Your task to perform on an android device: Is it going to rain today? Image 0: 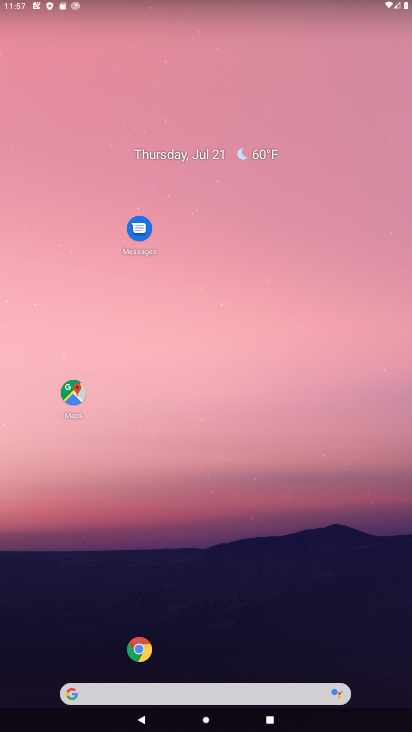
Step 0: click (123, 688)
Your task to perform on an android device: Is it going to rain today? Image 1: 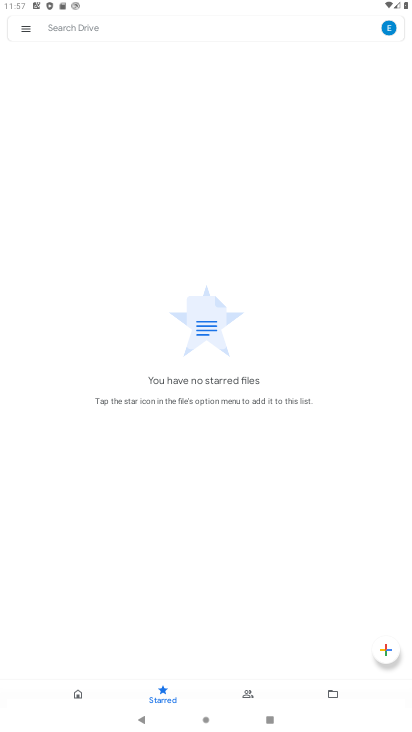
Step 1: press home button
Your task to perform on an android device: Is it going to rain today? Image 2: 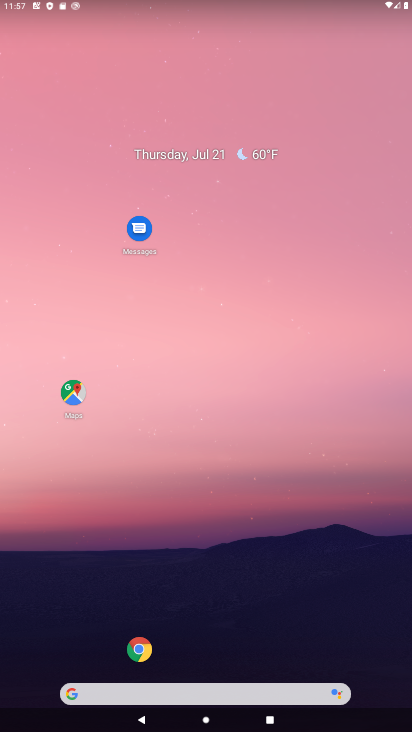
Step 2: click (99, 691)
Your task to perform on an android device: Is it going to rain today? Image 3: 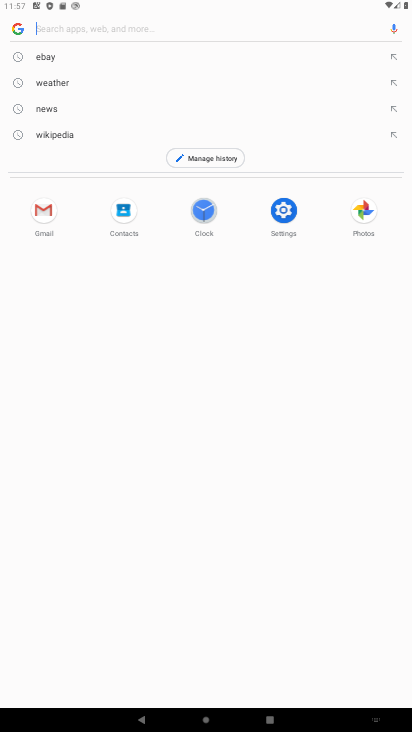
Step 3: drag from (350, 729) to (376, 492)
Your task to perform on an android device: Is it going to rain today? Image 4: 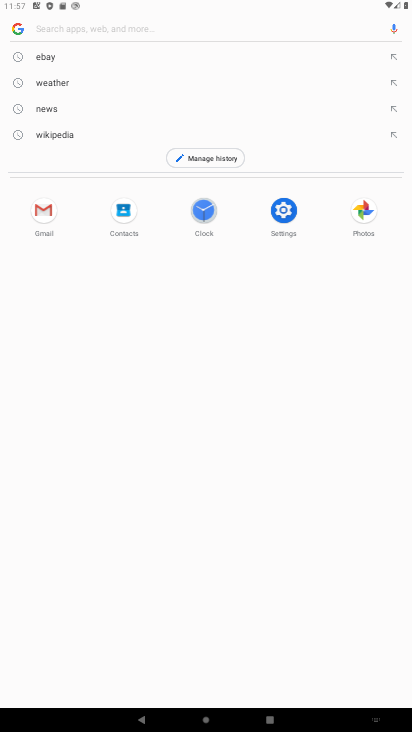
Step 4: type "Is it going to rain today?"
Your task to perform on an android device: Is it going to rain today? Image 5: 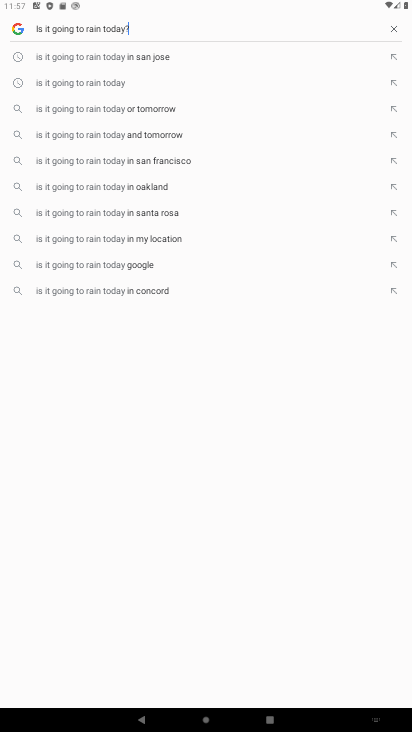
Step 5: type ""
Your task to perform on an android device: Is it going to rain today? Image 6: 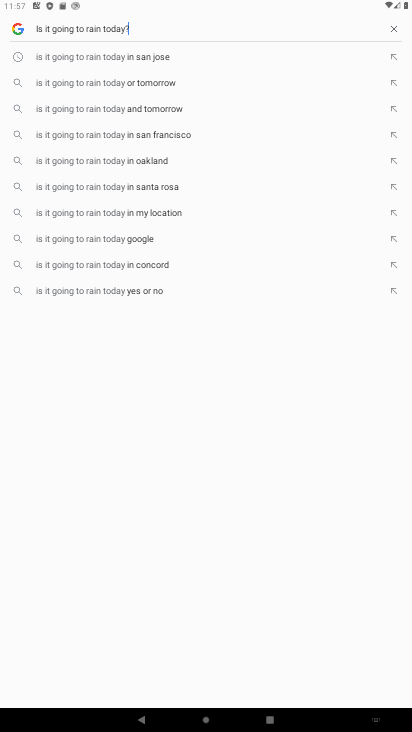
Step 6: type ""
Your task to perform on an android device: Is it going to rain today? Image 7: 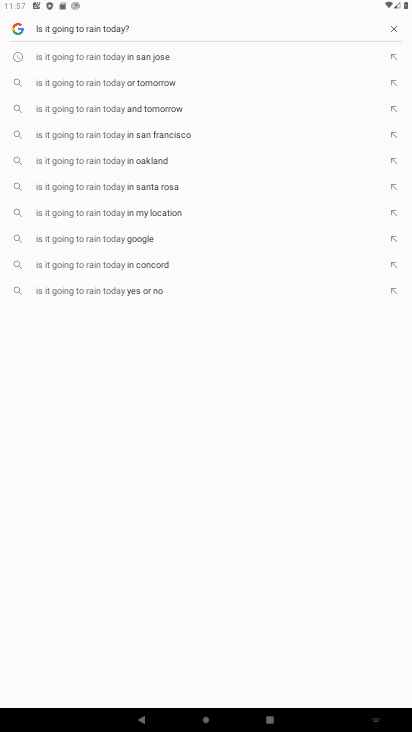
Step 7: type ""
Your task to perform on an android device: Is it going to rain today? Image 8: 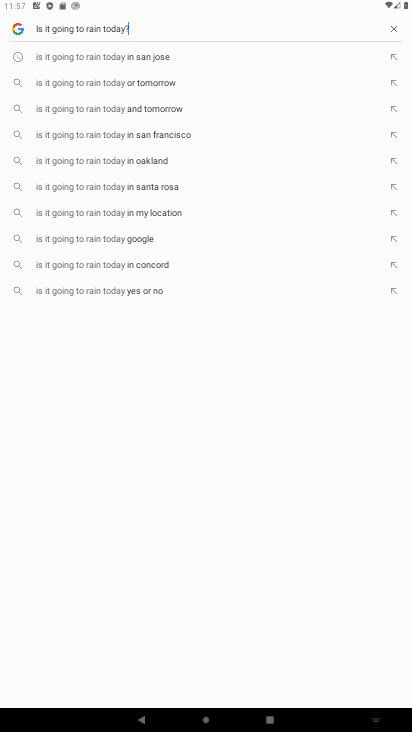
Step 8: task complete